Your task to perform on an android device: Open internet settings Image 0: 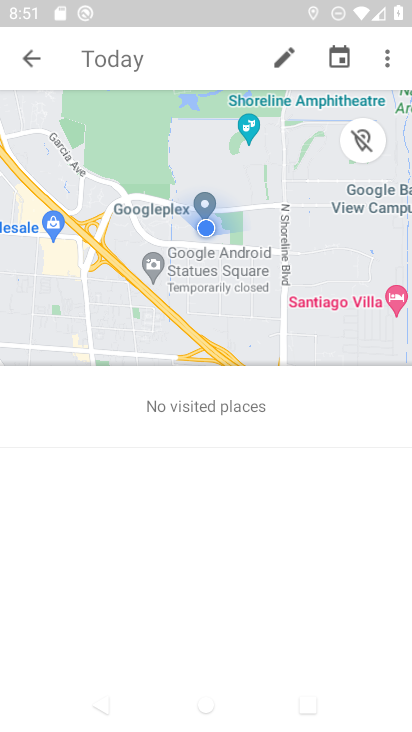
Step 0: press home button
Your task to perform on an android device: Open internet settings Image 1: 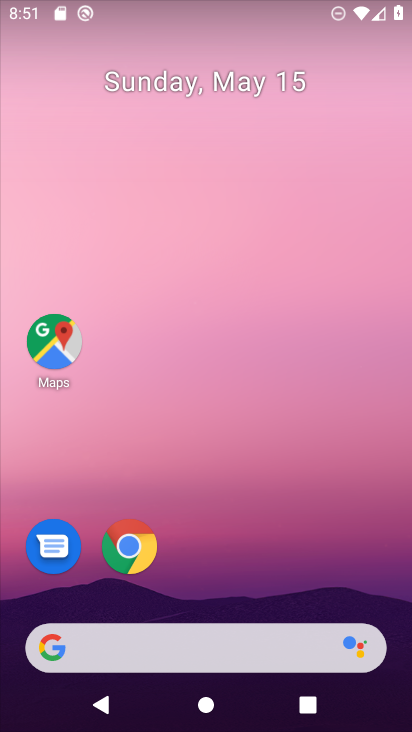
Step 1: drag from (248, 551) to (203, 60)
Your task to perform on an android device: Open internet settings Image 2: 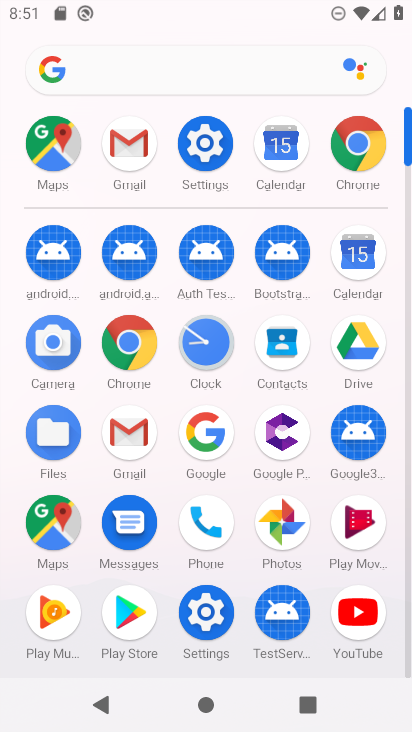
Step 2: click (199, 129)
Your task to perform on an android device: Open internet settings Image 3: 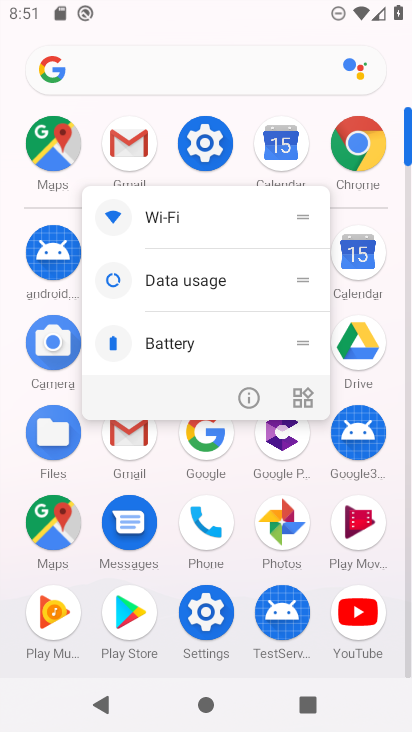
Step 3: click (213, 146)
Your task to perform on an android device: Open internet settings Image 4: 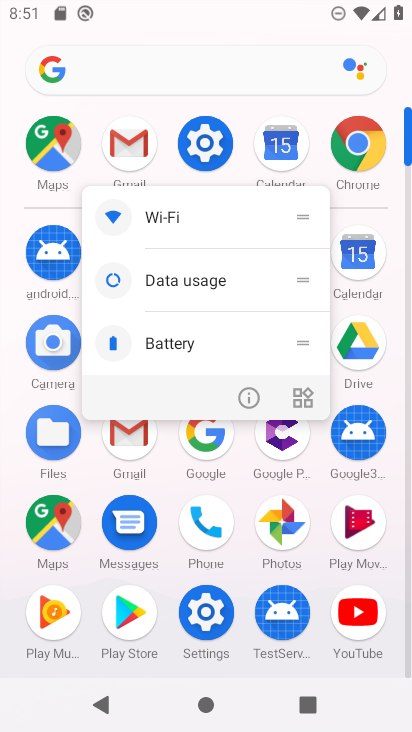
Step 4: click (208, 134)
Your task to perform on an android device: Open internet settings Image 5: 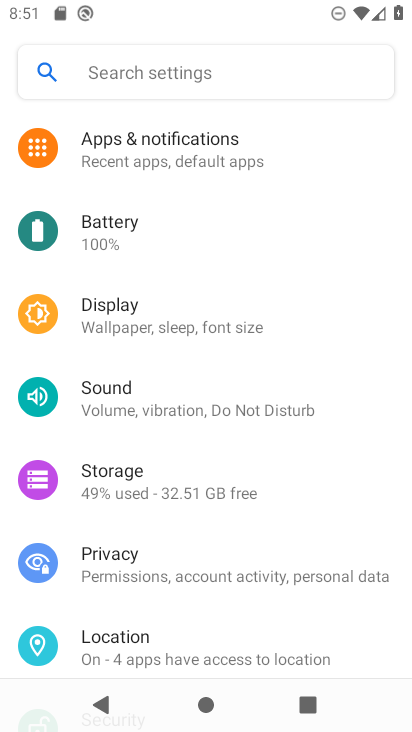
Step 5: drag from (223, 252) to (249, 555)
Your task to perform on an android device: Open internet settings Image 6: 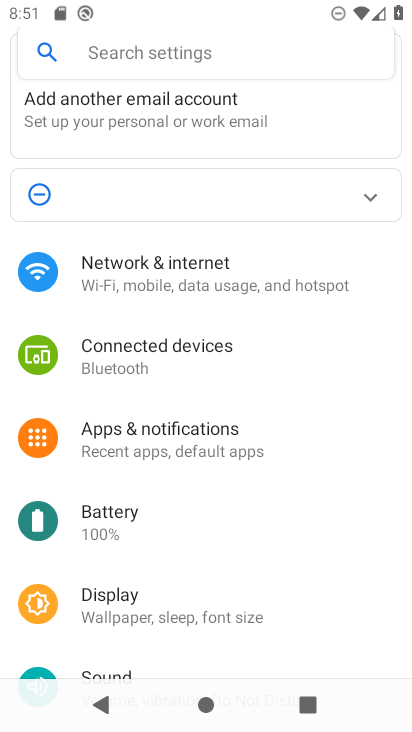
Step 6: click (234, 273)
Your task to perform on an android device: Open internet settings Image 7: 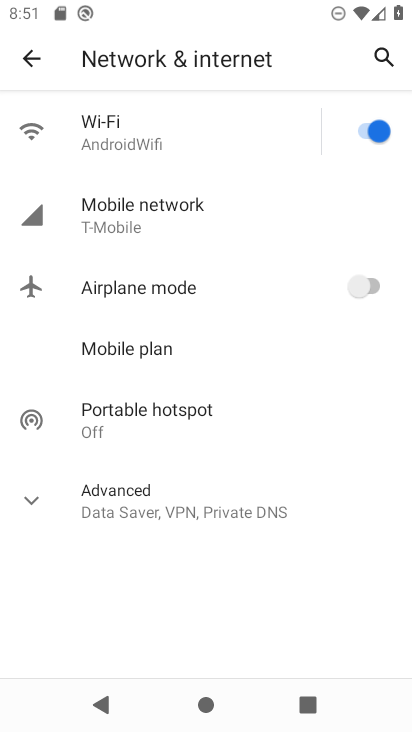
Step 7: task complete